Your task to perform on an android device: Open CNN.com Image 0: 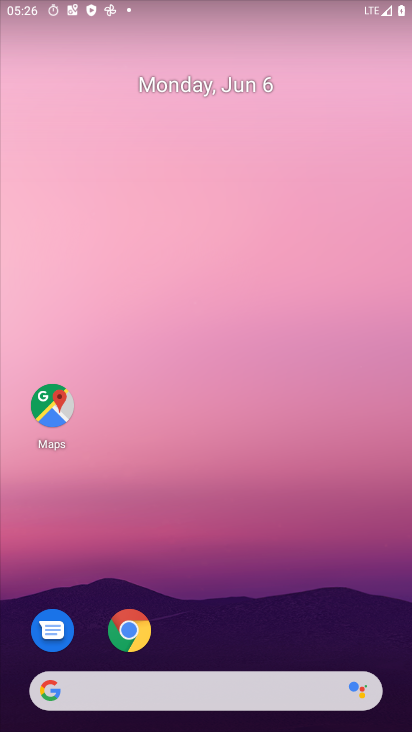
Step 0: click (129, 621)
Your task to perform on an android device: Open CNN.com Image 1: 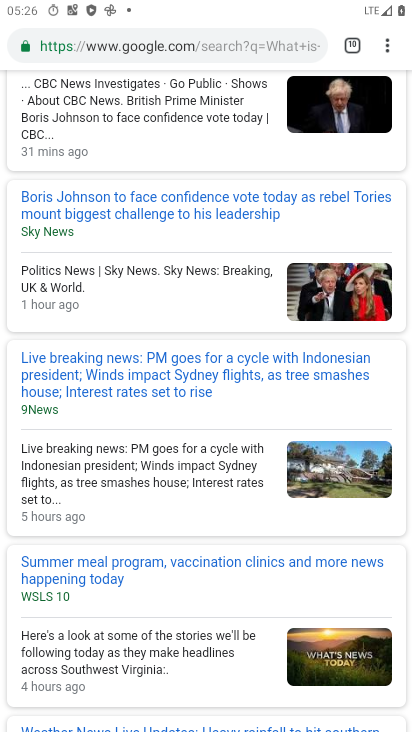
Step 1: click (261, 45)
Your task to perform on an android device: Open CNN.com Image 2: 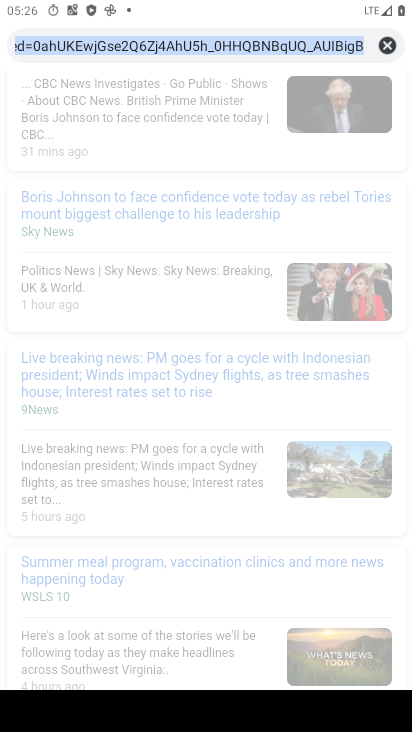
Step 2: click (387, 41)
Your task to perform on an android device: Open CNN.com Image 3: 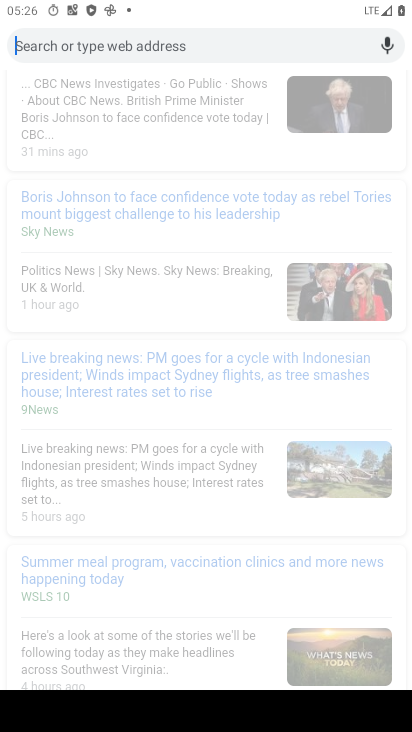
Step 3: type "CNN.com"
Your task to perform on an android device: Open CNN.com Image 4: 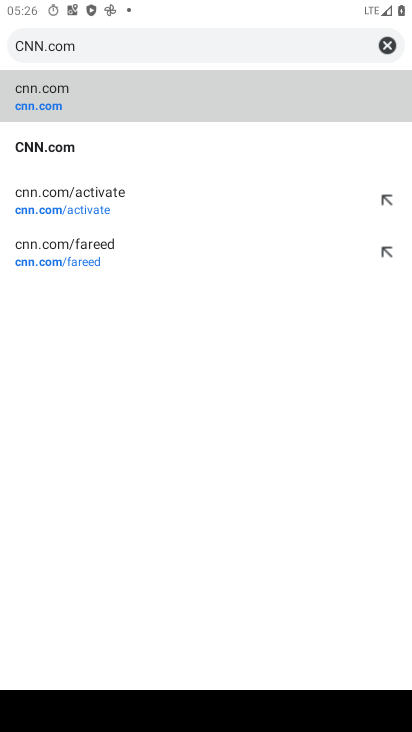
Step 4: click (44, 104)
Your task to perform on an android device: Open CNN.com Image 5: 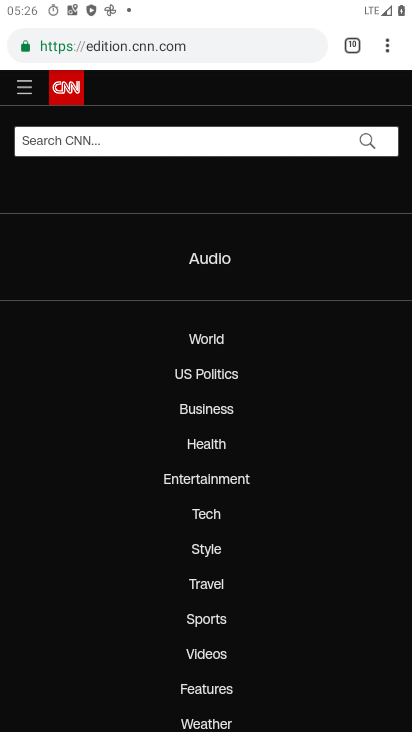
Step 5: task complete